Your task to perform on an android device: Open the phone app and click the voicemail tab. Image 0: 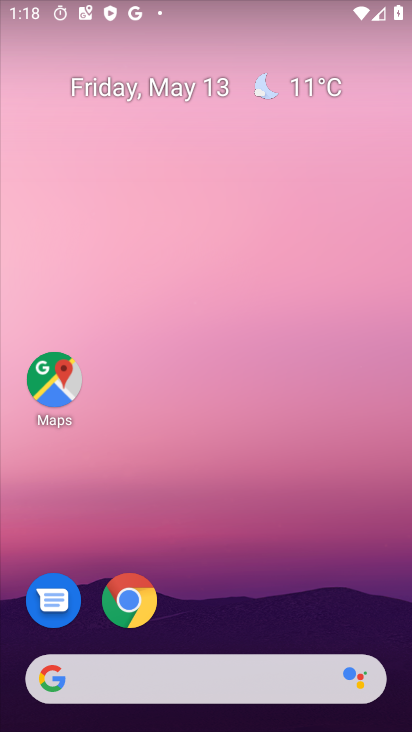
Step 0: drag from (172, 596) to (263, 178)
Your task to perform on an android device: Open the phone app and click the voicemail tab. Image 1: 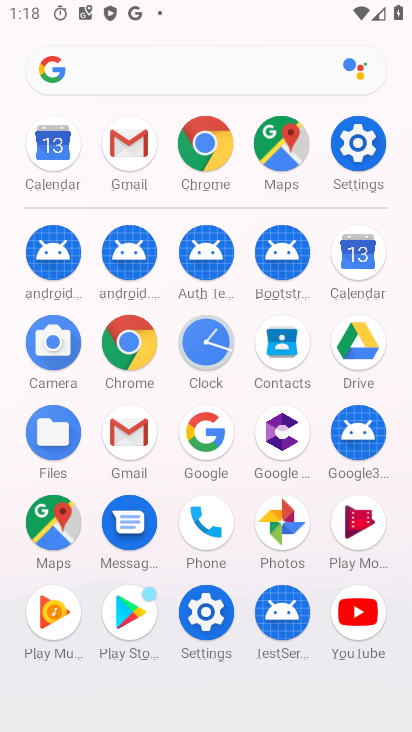
Step 1: click (219, 500)
Your task to perform on an android device: Open the phone app and click the voicemail tab. Image 2: 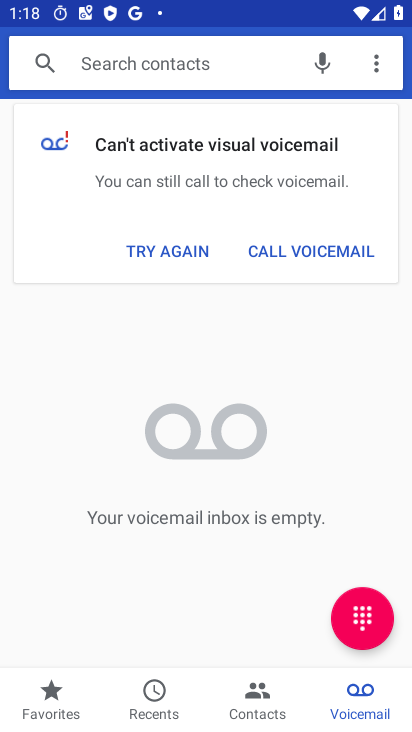
Step 2: click (358, 694)
Your task to perform on an android device: Open the phone app and click the voicemail tab. Image 3: 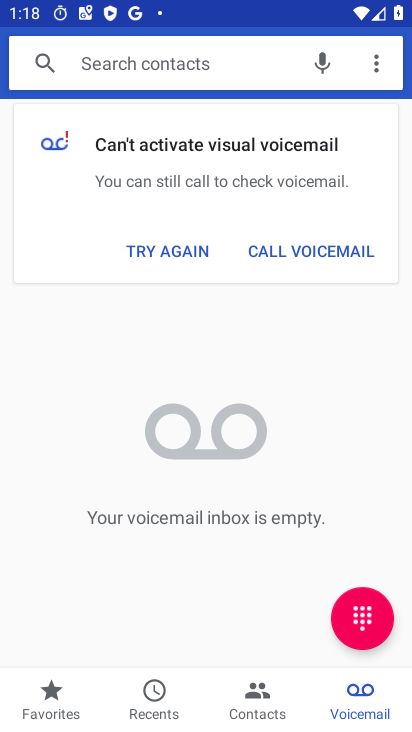
Step 3: task complete